Your task to perform on an android device: Go to Wikipedia Image 0: 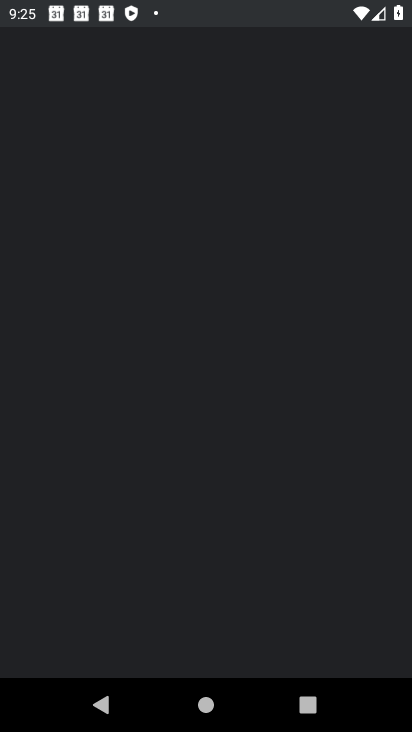
Step 0: drag from (260, 576) to (409, 218)
Your task to perform on an android device: Go to Wikipedia Image 1: 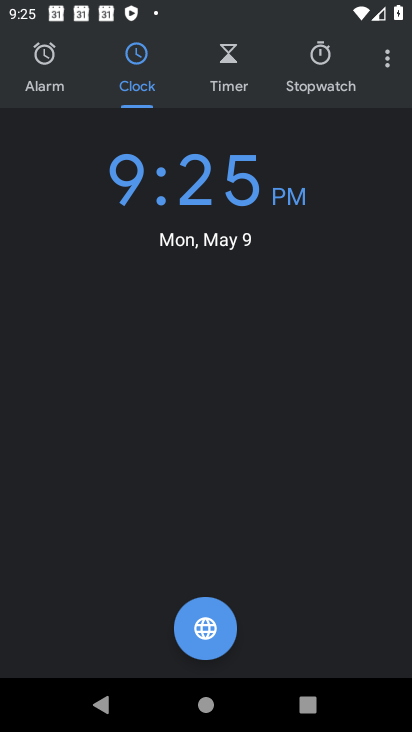
Step 1: press home button
Your task to perform on an android device: Go to Wikipedia Image 2: 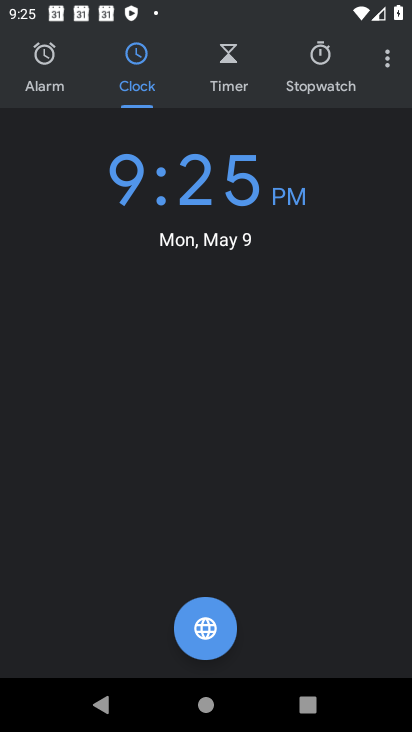
Step 2: drag from (409, 218) to (404, 426)
Your task to perform on an android device: Go to Wikipedia Image 3: 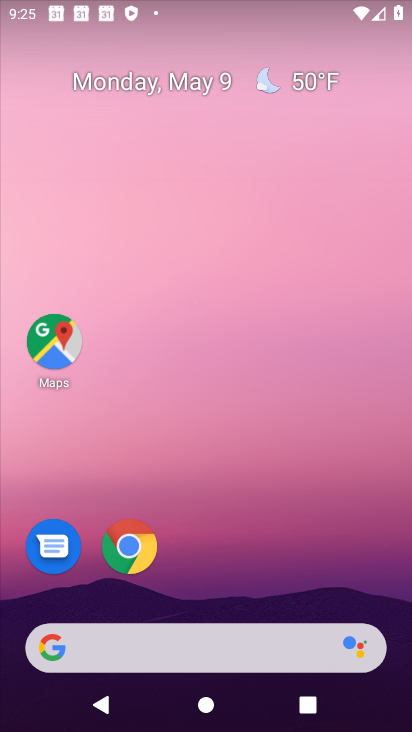
Step 3: click (140, 527)
Your task to perform on an android device: Go to Wikipedia Image 4: 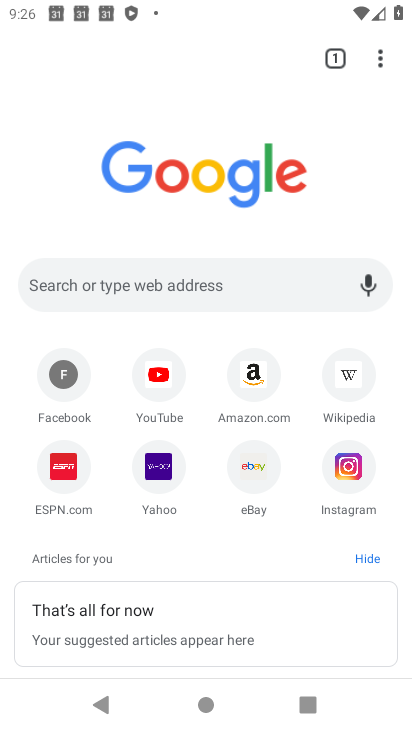
Step 4: drag from (372, 61) to (33, 153)
Your task to perform on an android device: Go to Wikipedia Image 5: 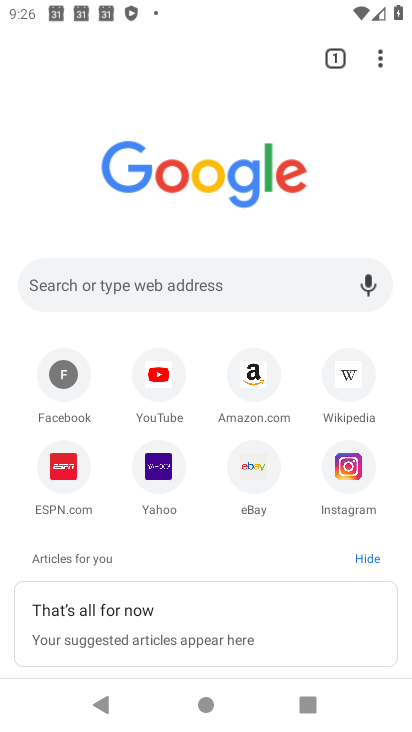
Step 5: click (344, 368)
Your task to perform on an android device: Go to Wikipedia Image 6: 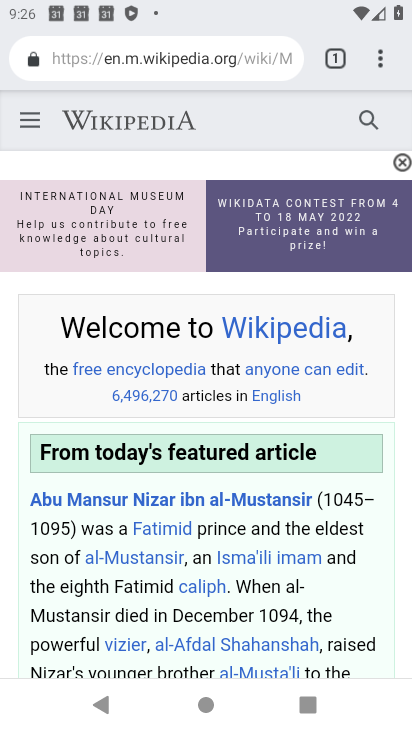
Step 6: task complete